Your task to perform on an android device: Open the Play Movies app and select the watchlist tab. Image 0: 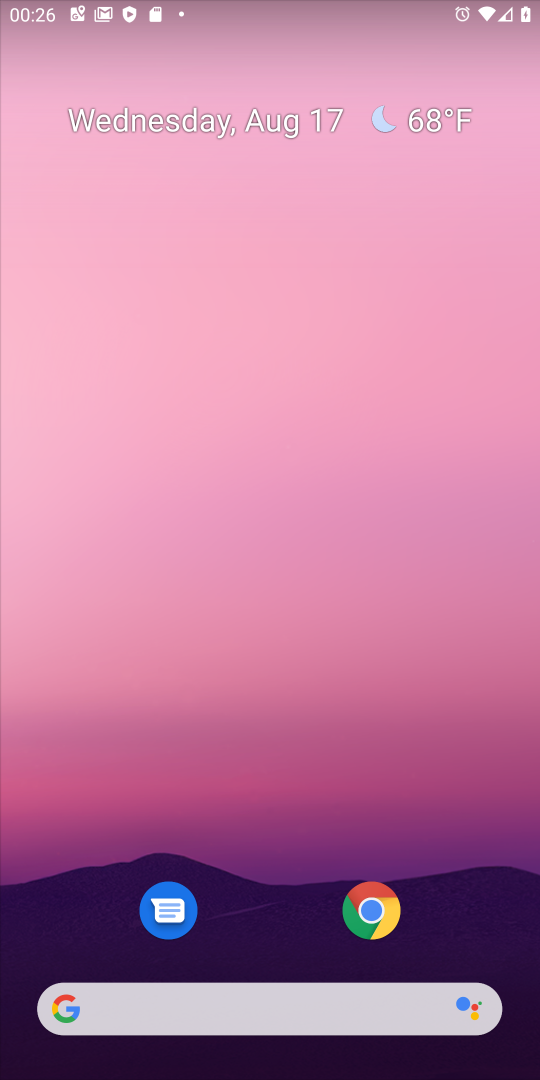
Step 0: drag from (271, 829) to (505, 32)
Your task to perform on an android device: Open the Play Movies app and select the watchlist tab. Image 1: 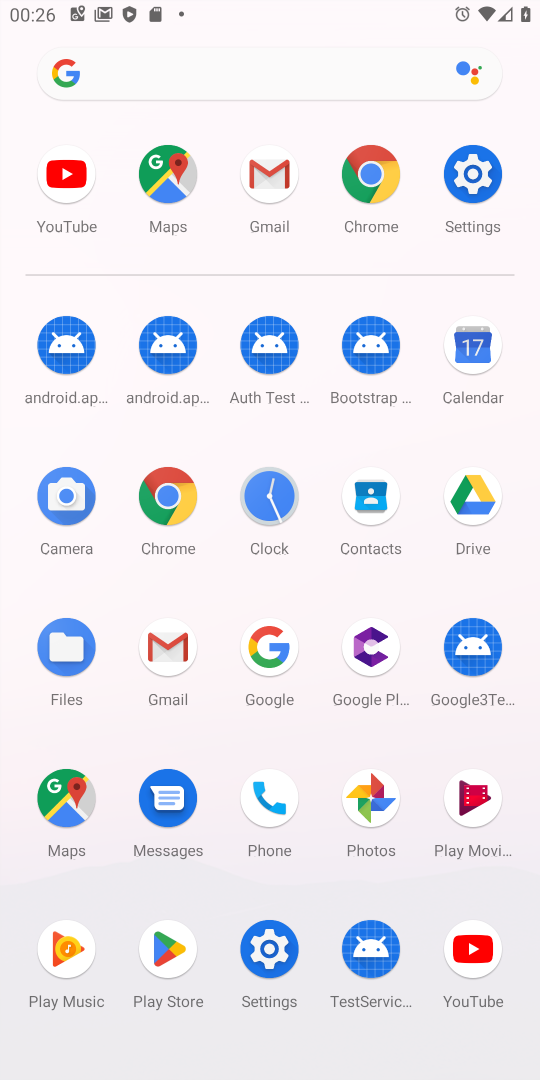
Step 1: click (476, 796)
Your task to perform on an android device: Open the Play Movies app and select the watchlist tab. Image 2: 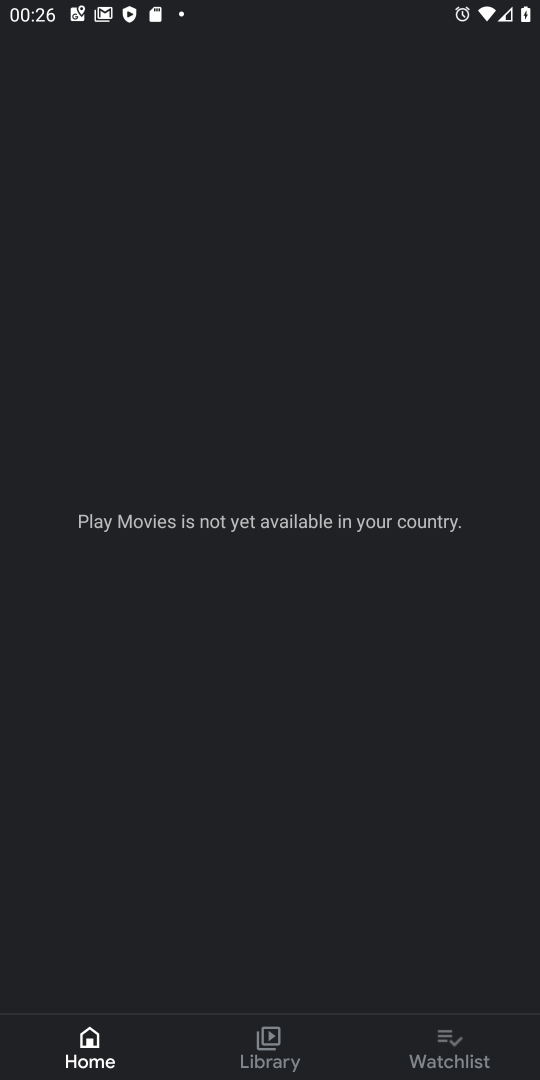
Step 2: click (453, 1064)
Your task to perform on an android device: Open the Play Movies app and select the watchlist tab. Image 3: 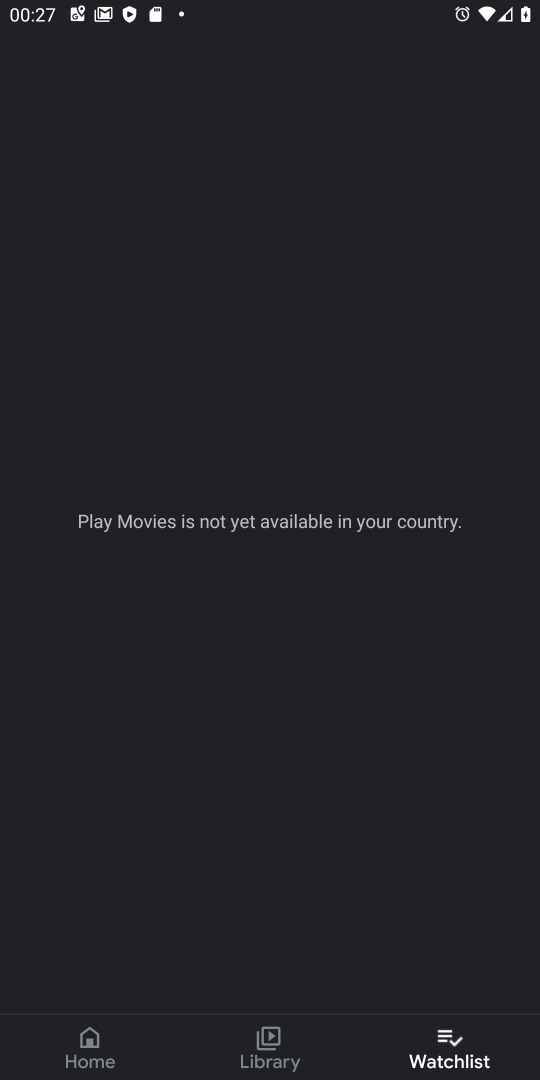
Step 3: task complete